Your task to perform on an android device: Go to Amazon Image 0: 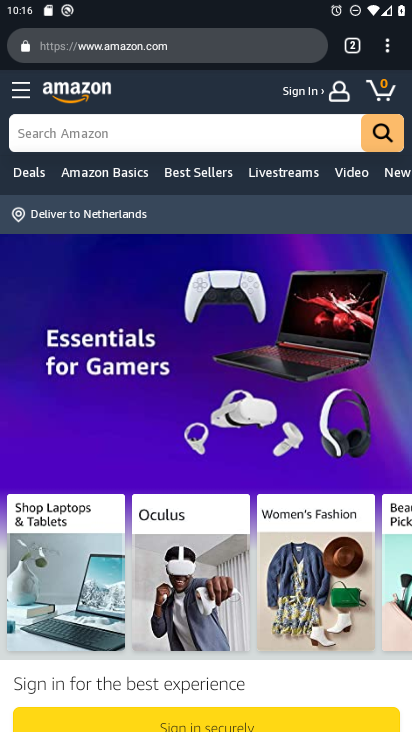
Step 0: press home button
Your task to perform on an android device: Go to Amazon Image 1: 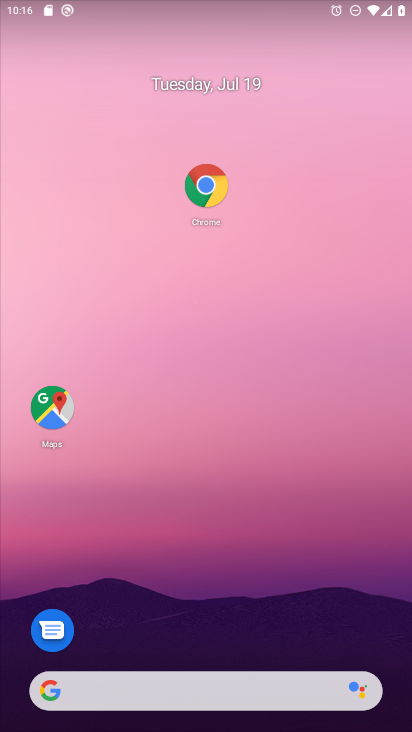
Step 1: drag from (206, 584) to (256, 239)
Your task to perform on an android device: Go to Amazon Image 2: 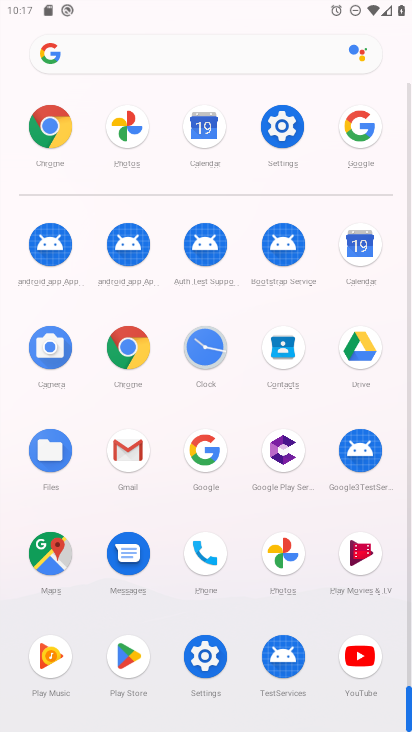
Step 2: click (117, 355)
Your task to perform on an android device: Go to Amazon Image 3: 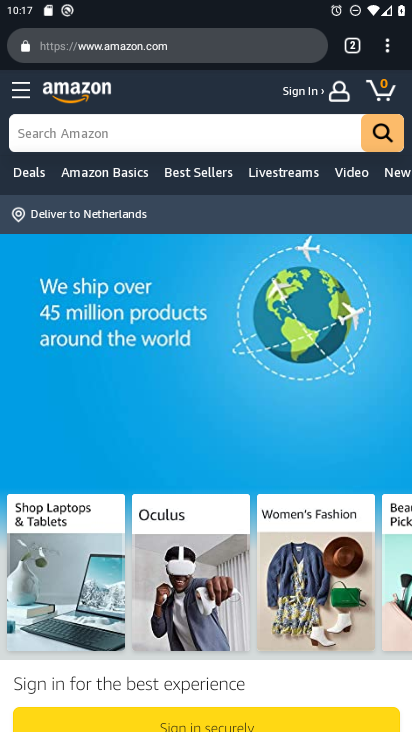
Step 3: task complete